Your task to perform on an android device: Show me productivity apps on the Play Store Image 0: 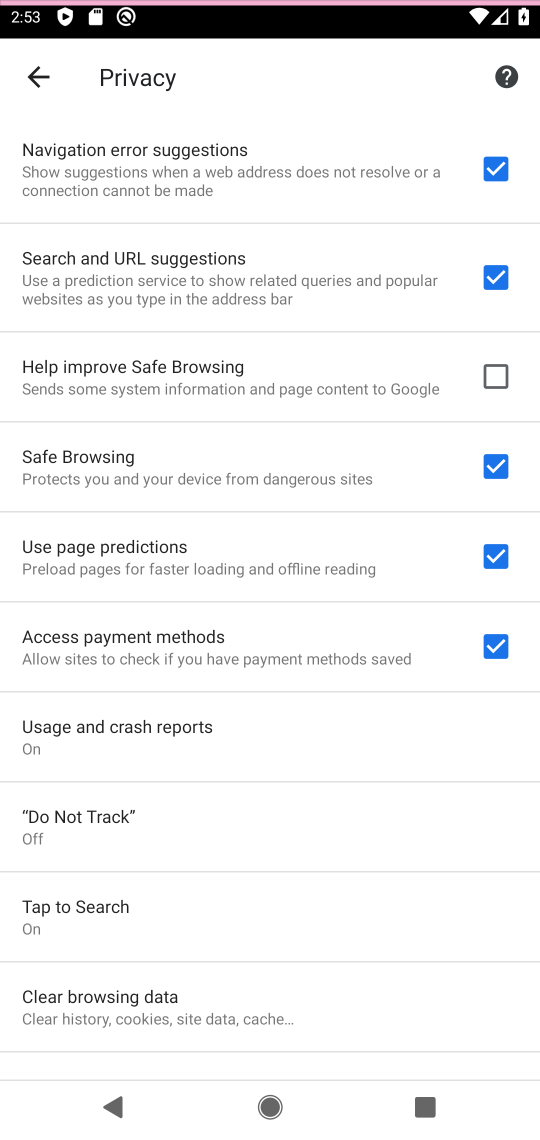
Step 0: press home button
Your task to perform on an android device: Show me productivity apps on the Play Store Image 1: 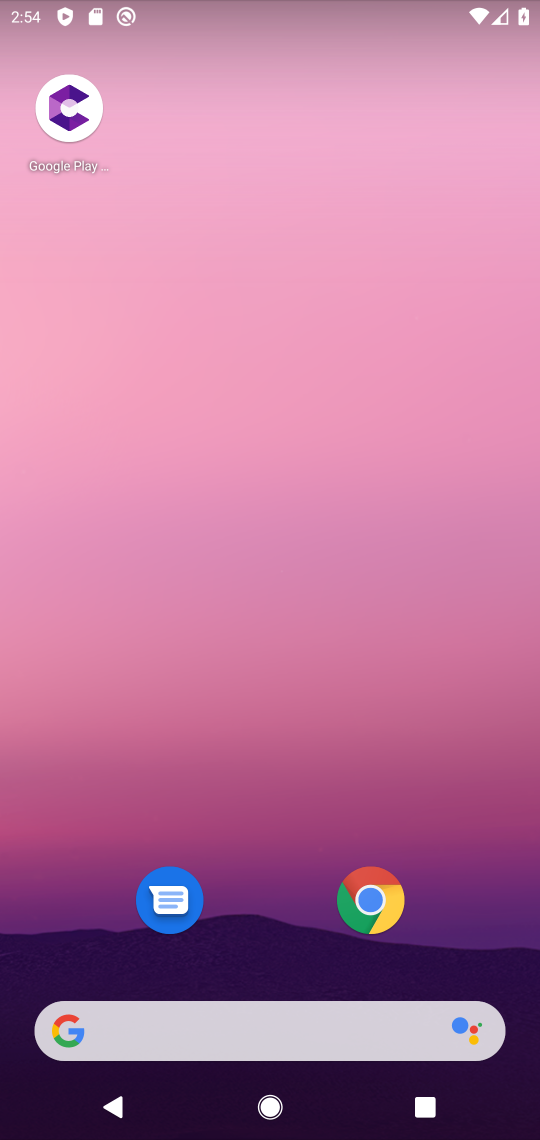
Step 1: drag from (313, 912) to (282, 448)
Your task to perform on an android device: Show me productivity apps on the Play Store Image 2: 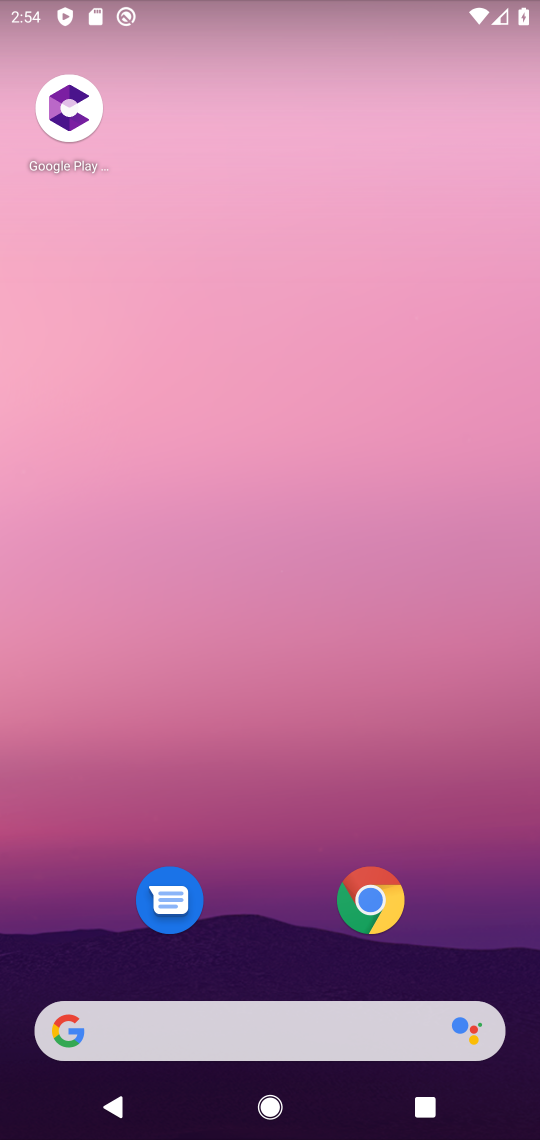
Step 2: drag from (281, 958) to (313, 248)
Your task to perform on an android device: Show me productivity apps on the Play Store Image 3: 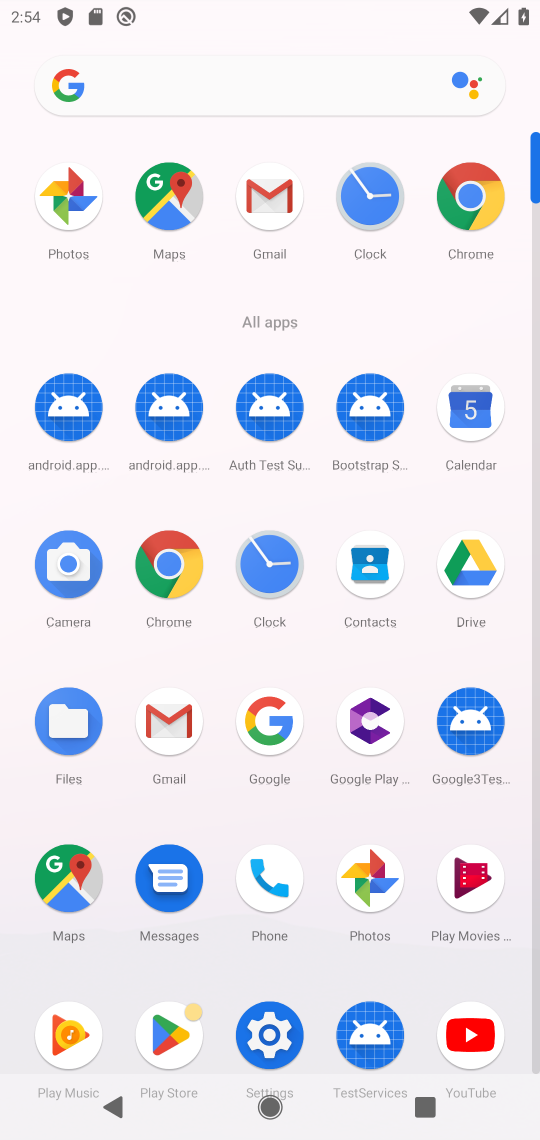
Step 3: click (174, 1042)
Your task to perform on an android device: Show me productivity apps on the Play Store Image 4: 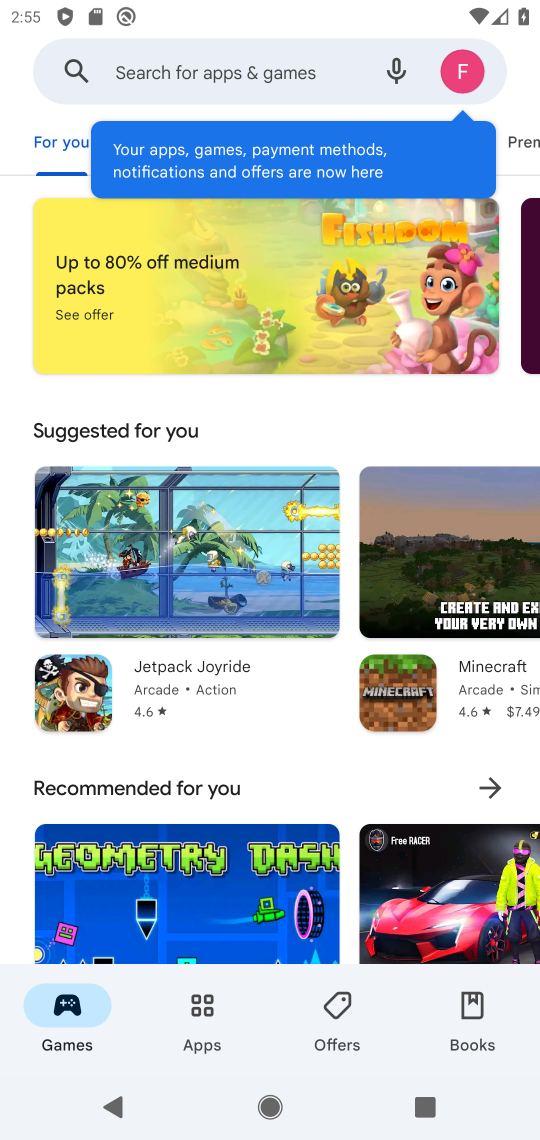
Step 4: click (197, 1008)
Your task to perform on an android device: Show me productivity apps on the Play Store Image 5: 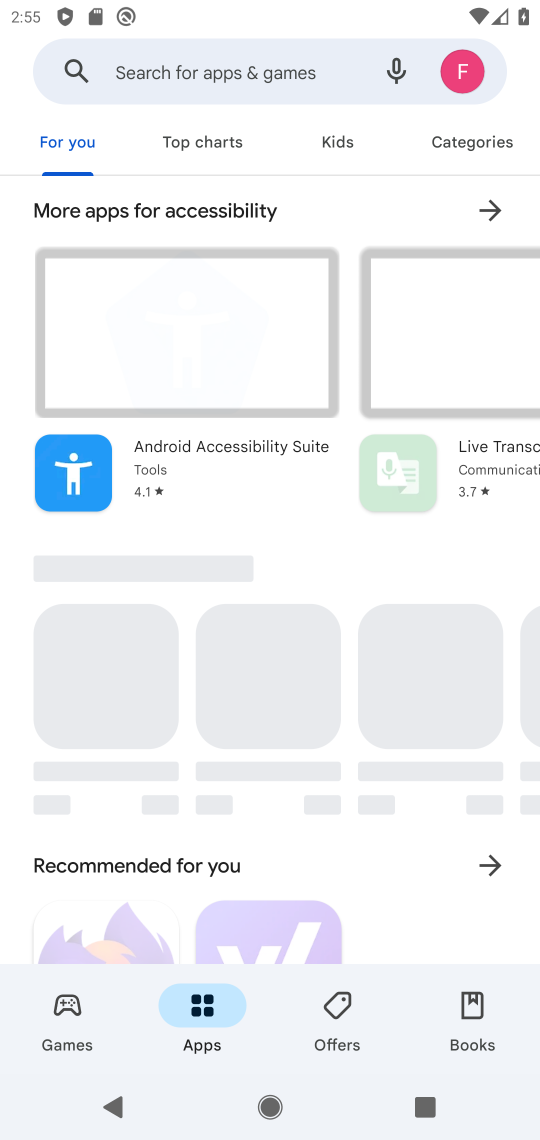
Step 5: click (482, 139)
Your task to perform on an android device: Show me productivity apps on the Play Store Image 6: 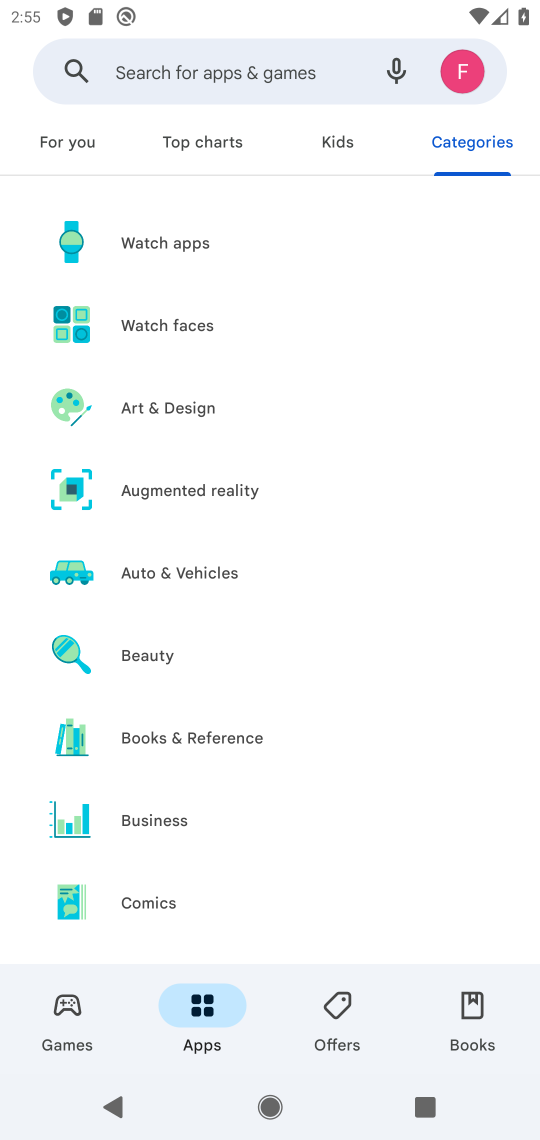
Step 6: drag from (323, 821) to (297, 164)
Your task to perform on an android device: Show me productivity apps on the Play Store Image 7: 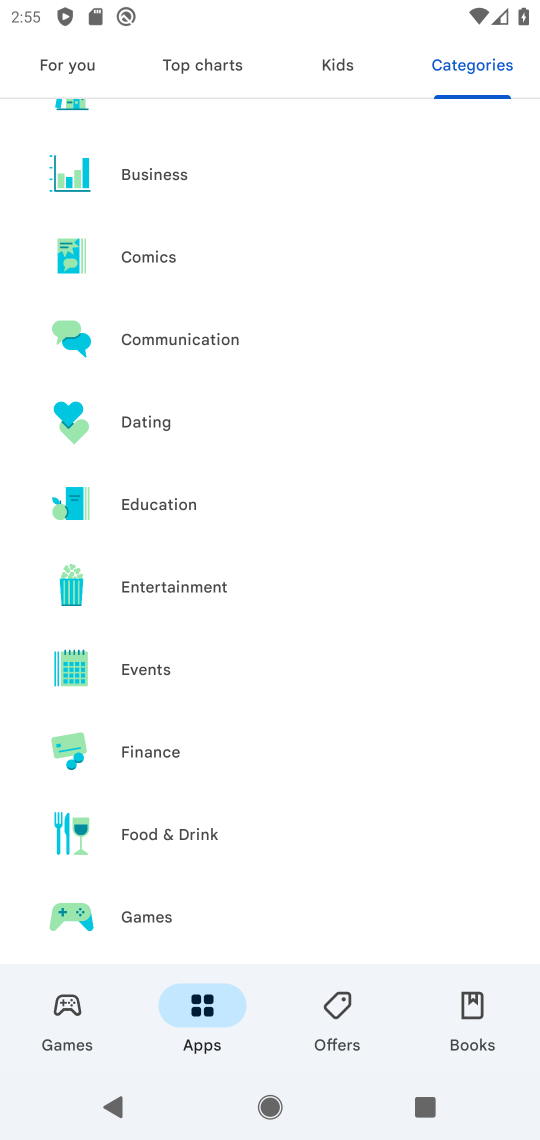
Step 7: drag from (292, 791) to (259, 250)
Your task to perform on an android device: Show me productivity apps on the Play Store Image 8: 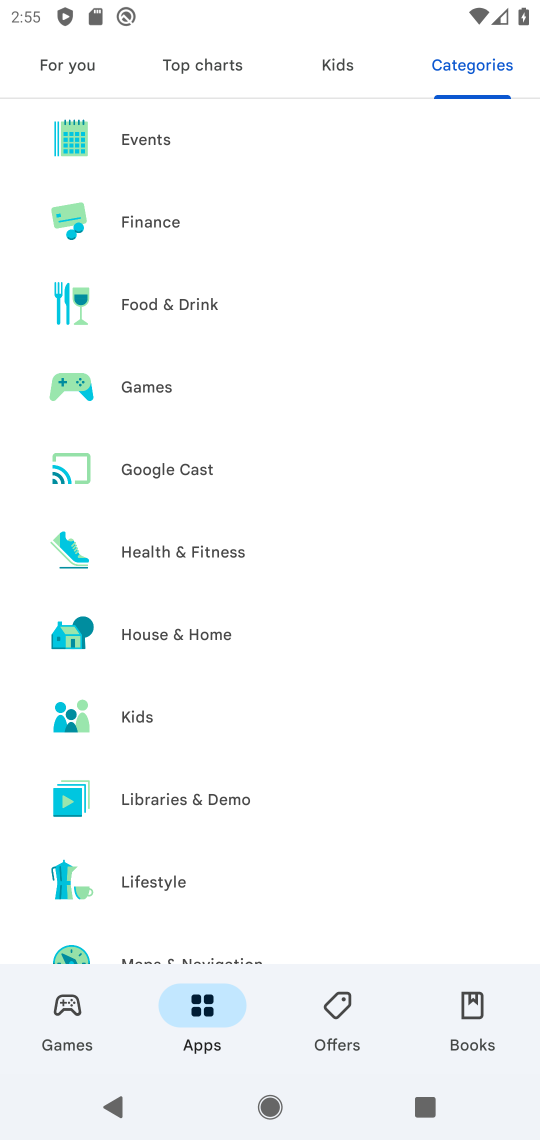
Step 8: drag from (369, 907) to (333, 126)
Your task to perform on an android device: Show me productivity apps on the Play Store Image 9: 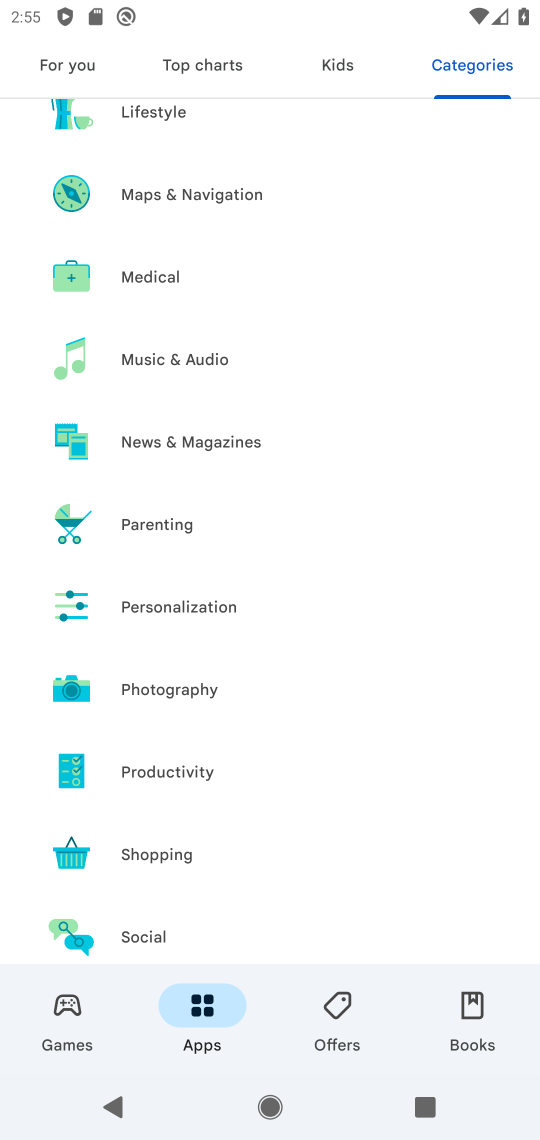
Step 9: click (156, 777)
Your task to perform on an android device: Show me productivity apps on the Play Store Image 10: 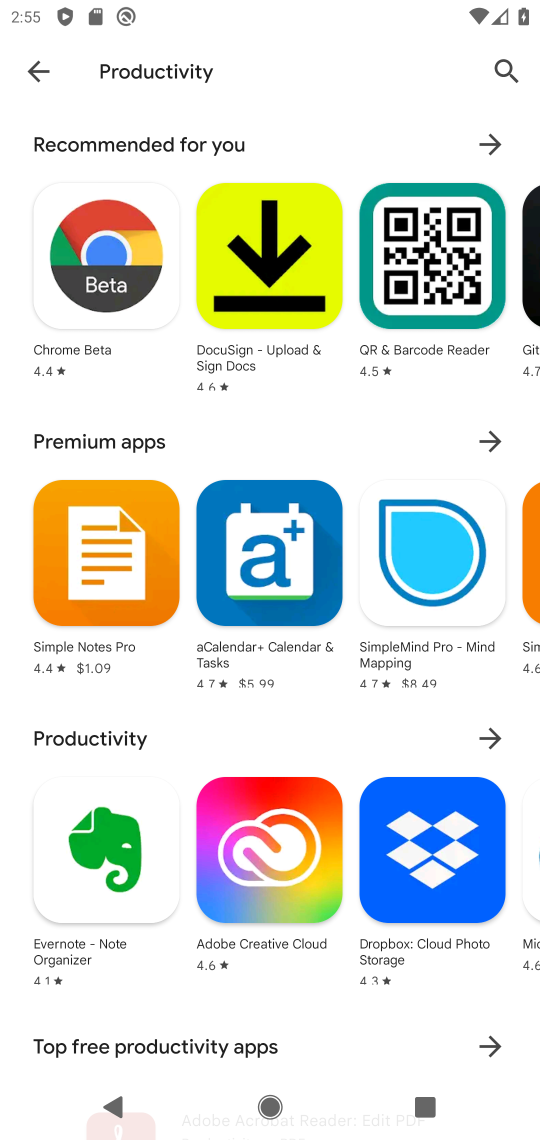
Step 10: task complete